Your task to perform on an android device: Open location settings Image 0: 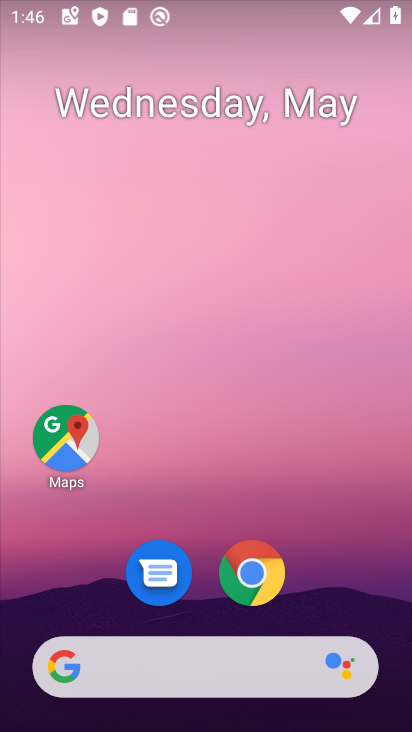
Step 0: drag from (317, 589) to (359, 18)
Your task to perform on an android device: Open location settings Image 1: 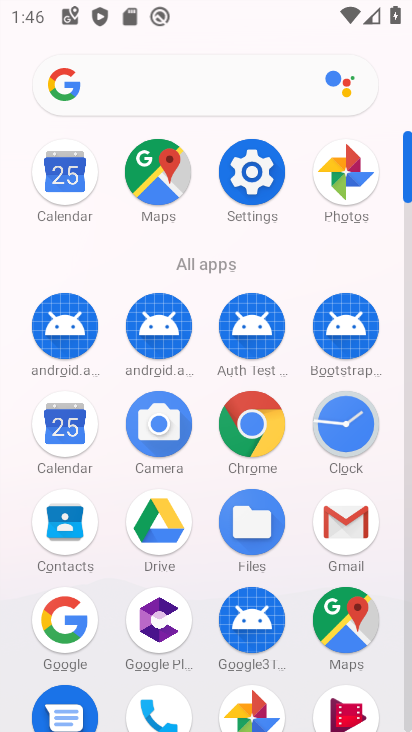
Step 1: click (245, 156)
Your task to perform on an android device: Open location settings Image 2: 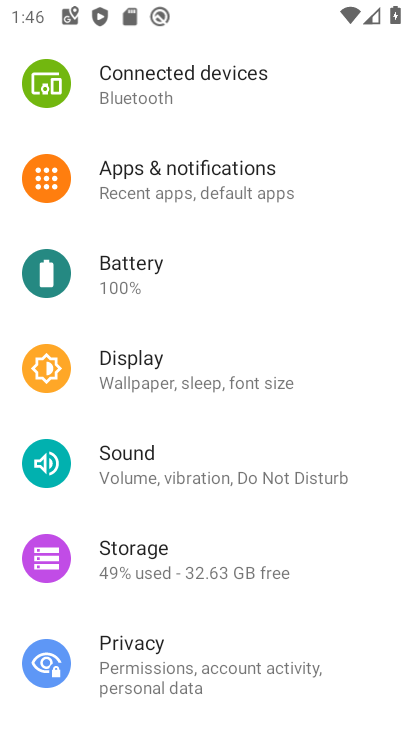
Step 2: drag from (172, 593) to (265, 213)
Your task to perform on an android device: Open location settings Image 3: 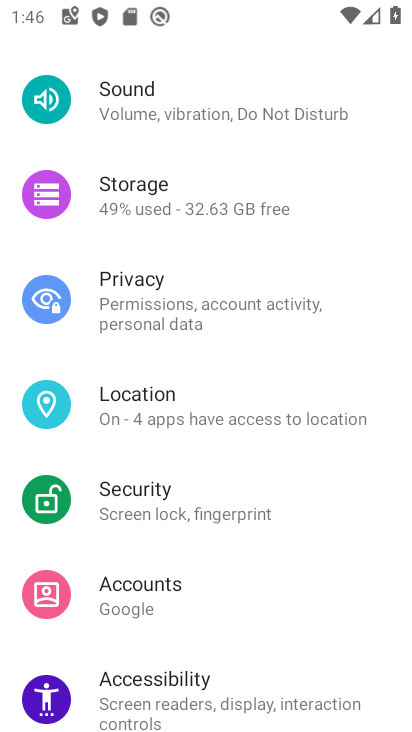
Step 3: click (166, 409)
Your task to perform on an android device: Open location settings Image 4: 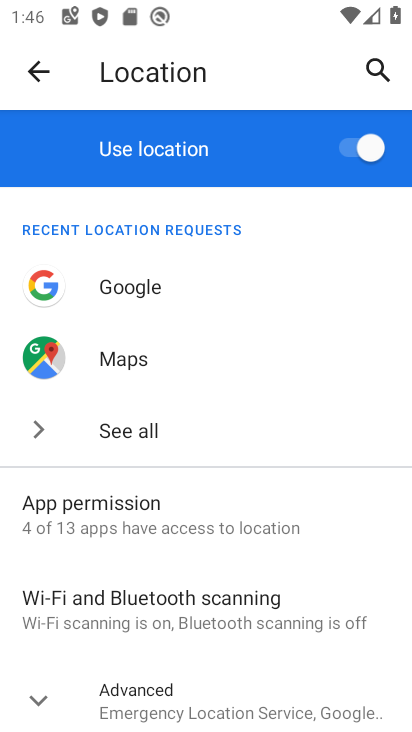
Step 4: task complete